Your task to perform on an android device: Show me productivity apps on the Play Store Image 0: 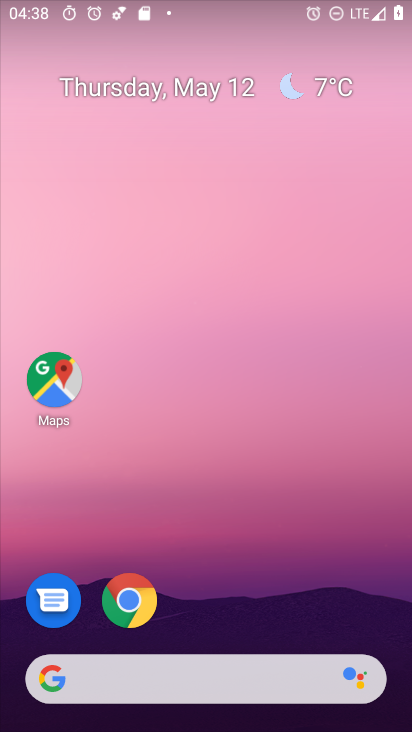
Step 0: drag from (179, 724) to (177, 177)
Your task to perform on an android device: Show me productivity apps on the Play Store Image 1: 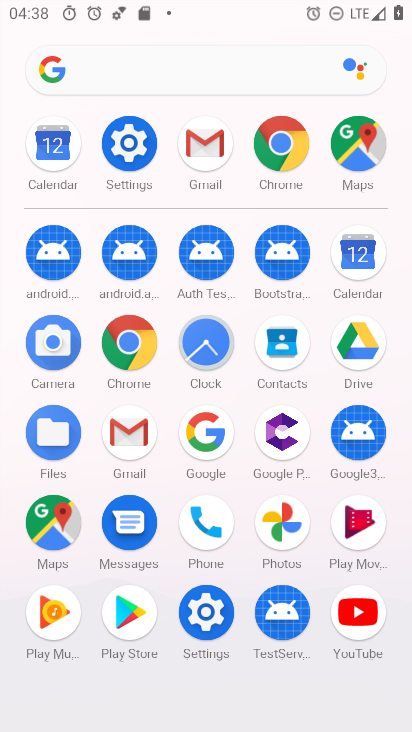
Step 1: click (115, 610)
Your task to perform on an android device: Show me productivity apps on the Play Store Image 2: 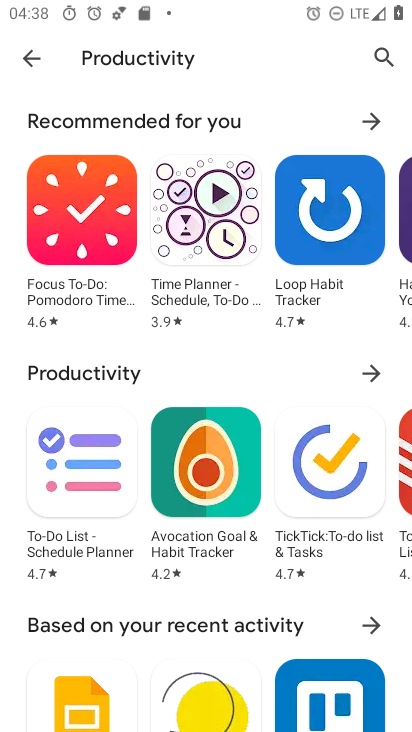
Step 2: task complete